Your task to perform on an android device: check out phone information Image 0: 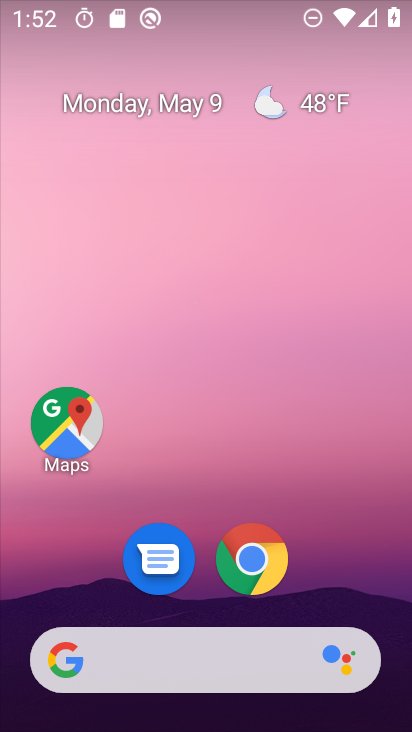
Step 0: drag from (234, 566) to (292, 106)
Your task to perform on an android device: check out phone information Image 1: 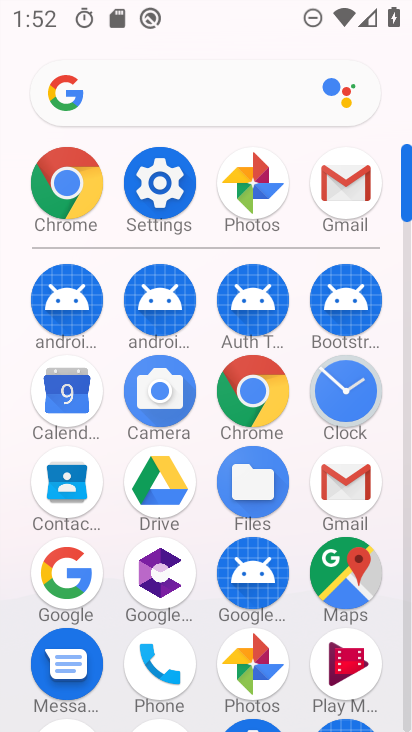
Step 1: drag from (205, 624) to (219, 201)
Your task to perform on an android device: check out phone information Image 2: 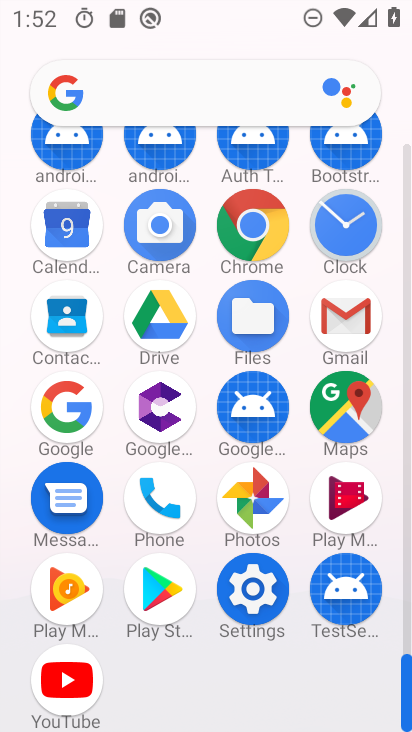
Step 2: click (251, 583)
Your task to perform on an android device: check out phone information Image 3: 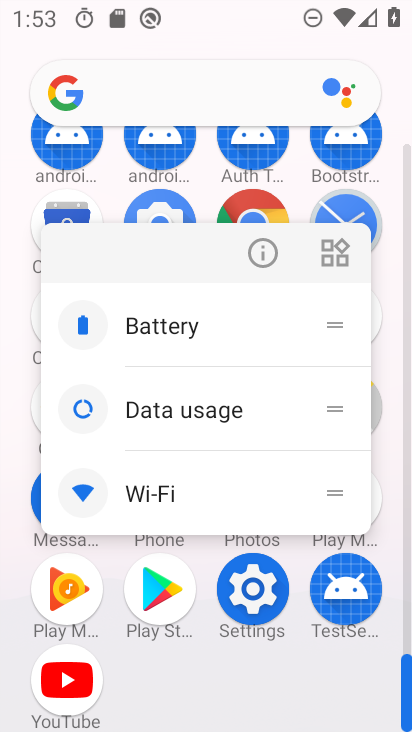
Step 3: click (257, 248)
Your task to perform on an android device: check out phone information Image 4: 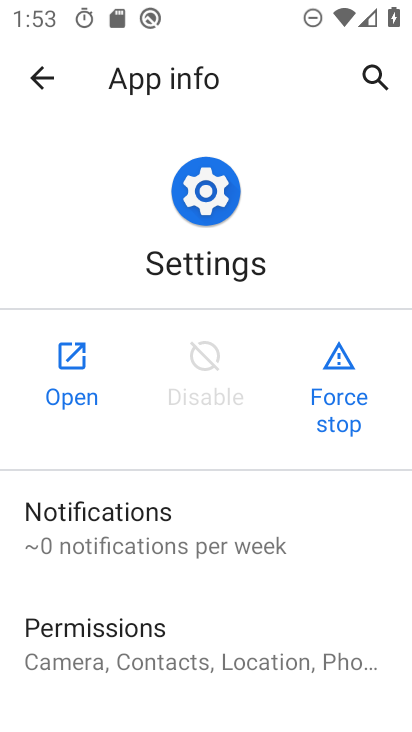
Step 4: click (69, 365)
Your task to perform on an android device: check out phone information Image 5: 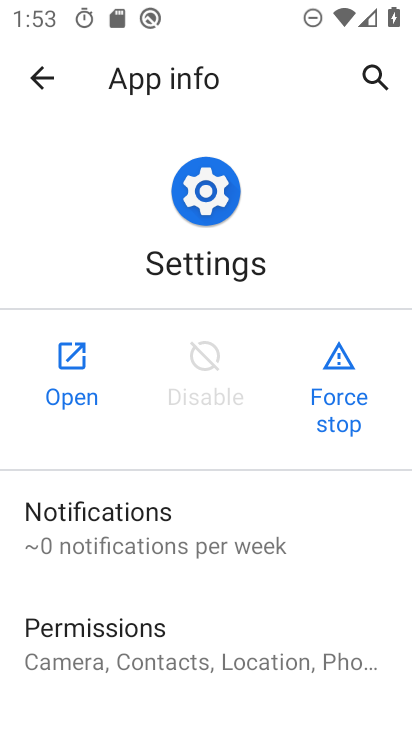
Step 5: click (69, 365)
Your task to perform on an android device: check out phone information Image 6: 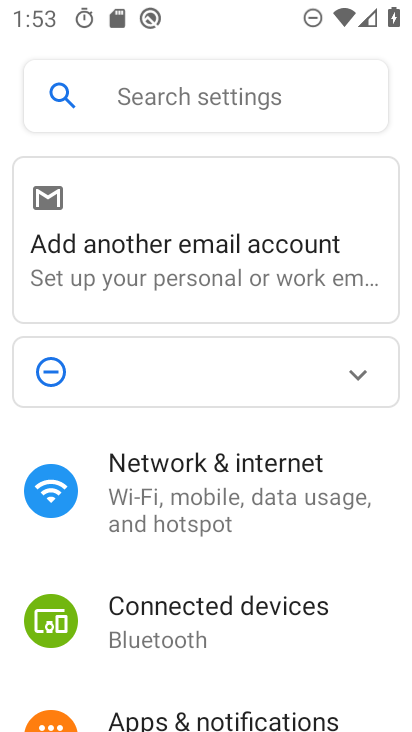
Step 6: drag from (240, 602) to (327, 87)
Your task to perform on an android device: check out phone information Image 7: 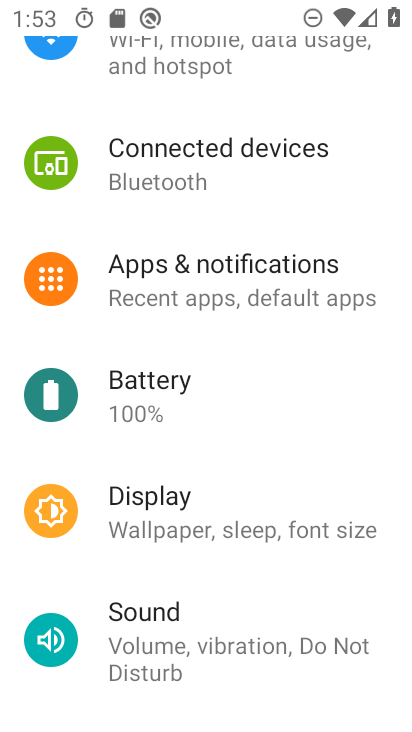
Step 7: drag from (217, 653) to (334, 105)
Your task to perform on an android device: check out phone information Image 8: 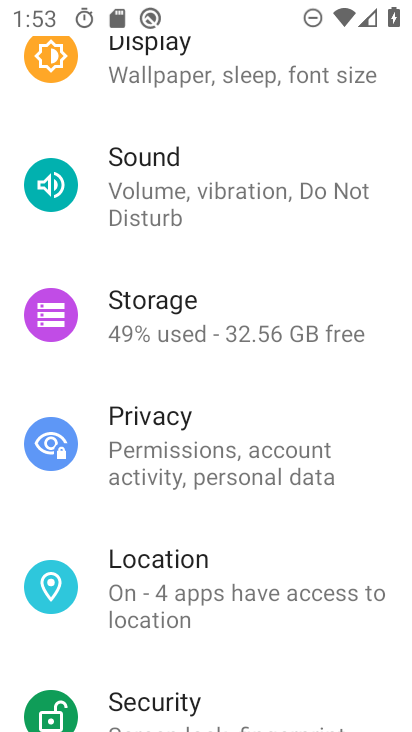
Step 8: drag from (167, 659) to (291, 85)
Your task to perform on an android device: check out phone information Image 9: 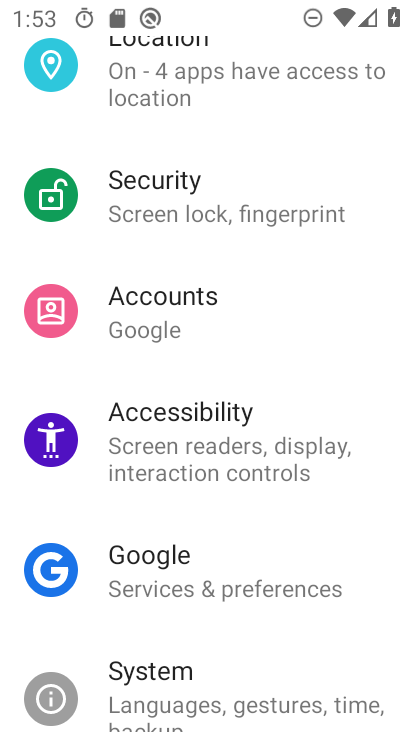
Step 9: drag from (232, 665) to (411, 34)
Your task to perform on an android device: check out phone information Image 10: 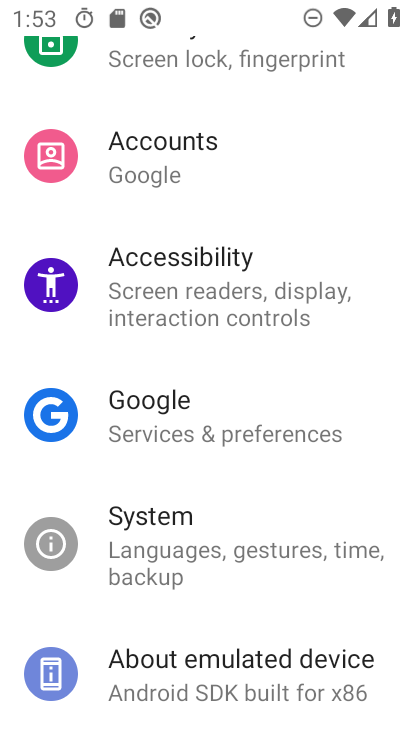
Step 10: click (196, 686)
Your task to perform on an android device: check out phone information Image 11: 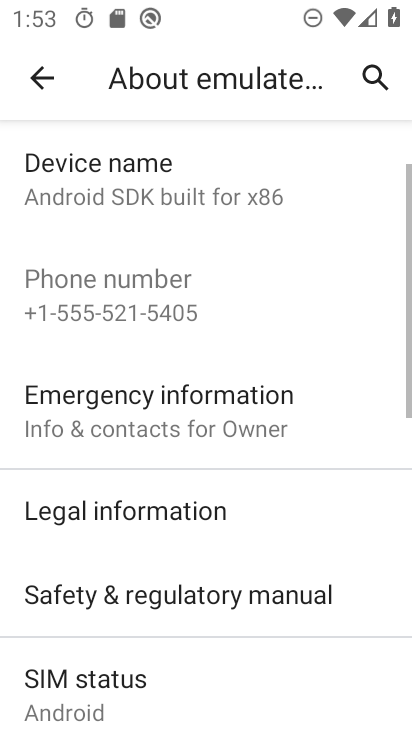
Step 11: task complete